Your task to perform on an android device: Go to Wikipedia Image 0: 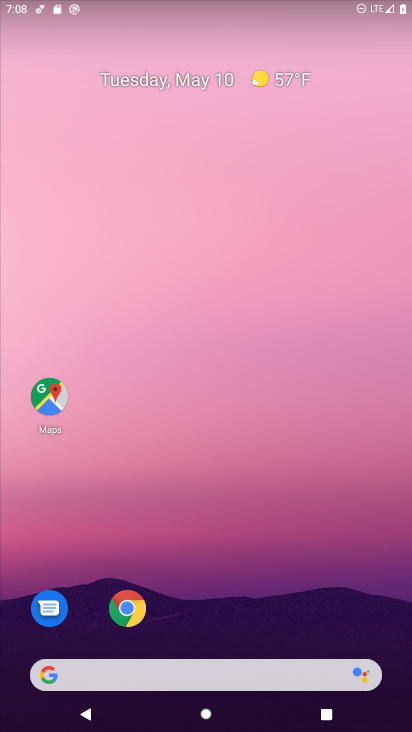
Step 0: drag from (315, 599) to (170, 0)
Your task to perform on an android device: Go to Wikipedia Image 1: 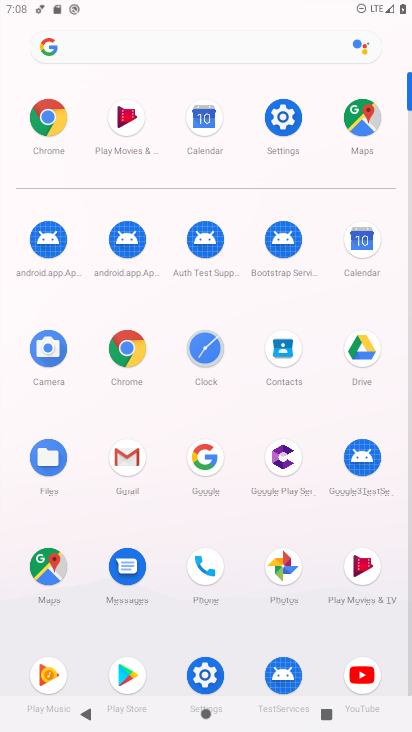
Step 1: click (120, 343)
Your task to perform on an android device: Go to Wikipedia Image 2: 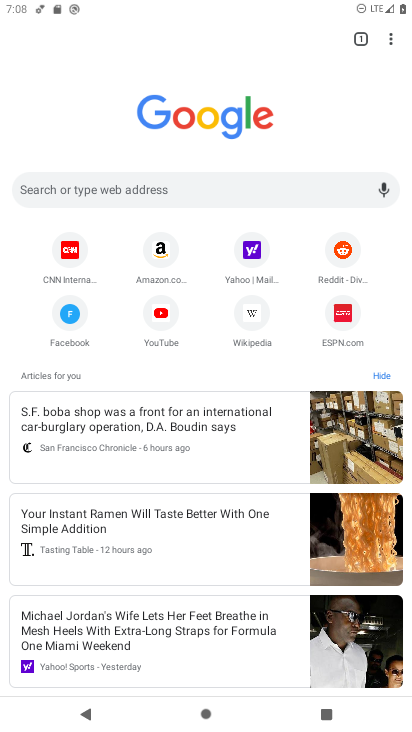
Step 2: click (261, 320)
Your task to perform on an android device: Go to Wikipedia Image 3: 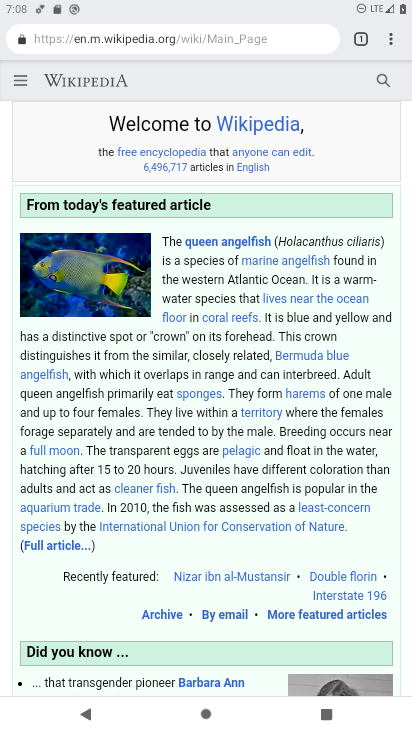
Step 3: task complete